Your task to perform on an android device: open sync settings in chrome Image 0: 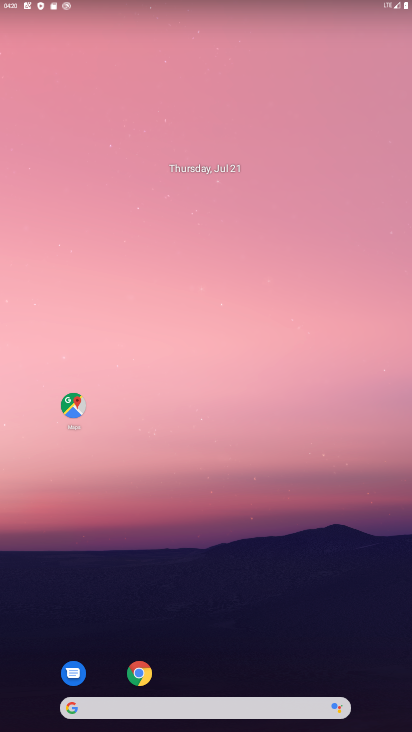
Step 0: drag from (229, 632) to (173, 1)
Your task to perform on an android device: open sync settings in chrome Image 1: 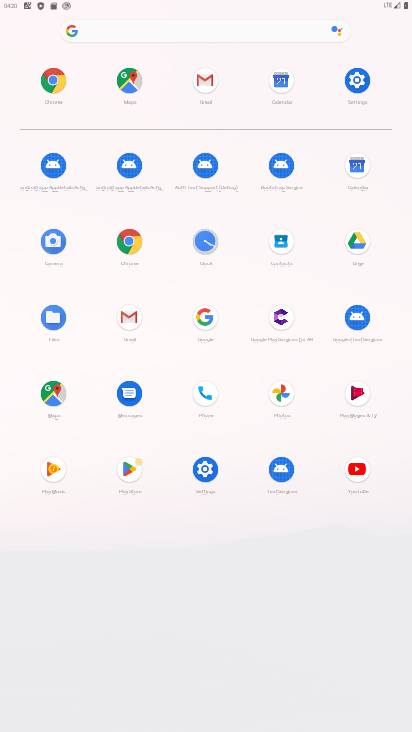
Step 1: click (125, 243)
Your task to perform on an android device: open sync settings in chrome Image 2: 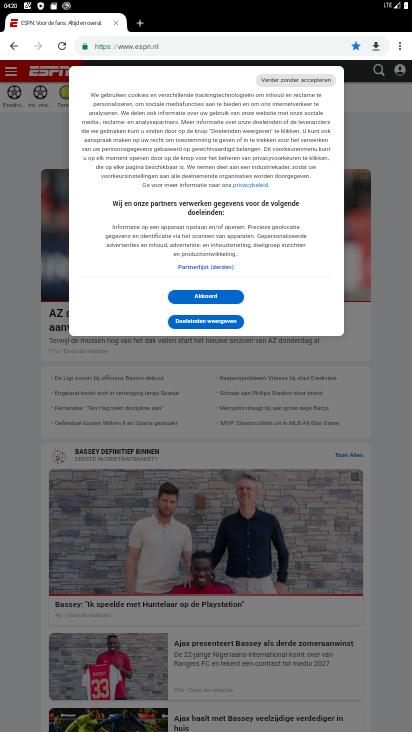
Step 2: drag from (396, 42) to (314, 303)
Your task to perform on an android device: open sync settings in chrome Image 3: 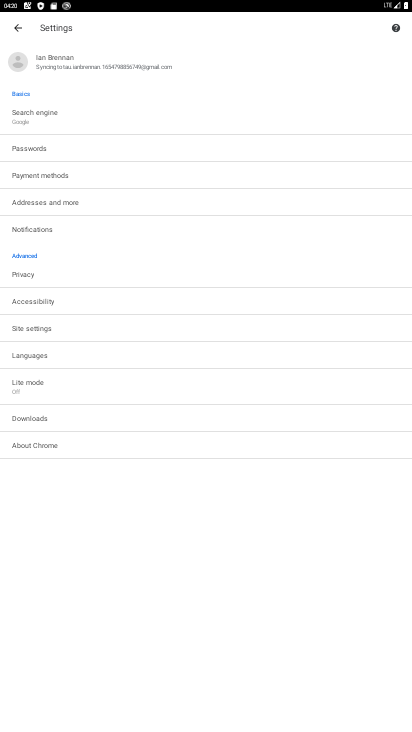
Step 3: click (44, 74)
Your task to perform on an android device: open sync settings in chrome Image 4: 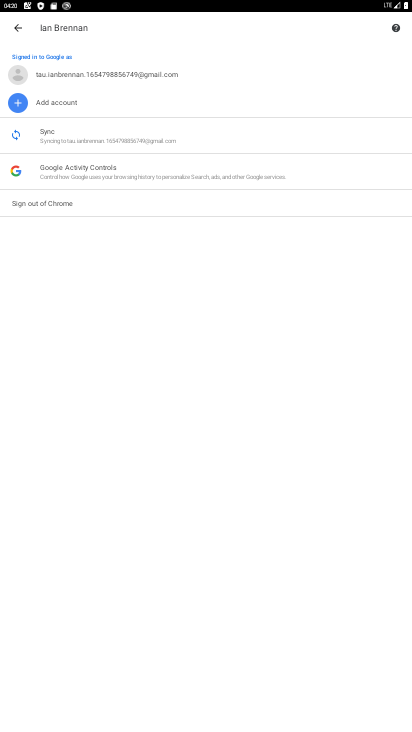
Step 4: click (79, 137)
Your task to perform on an android device: open sync settings in chrome Image 5: 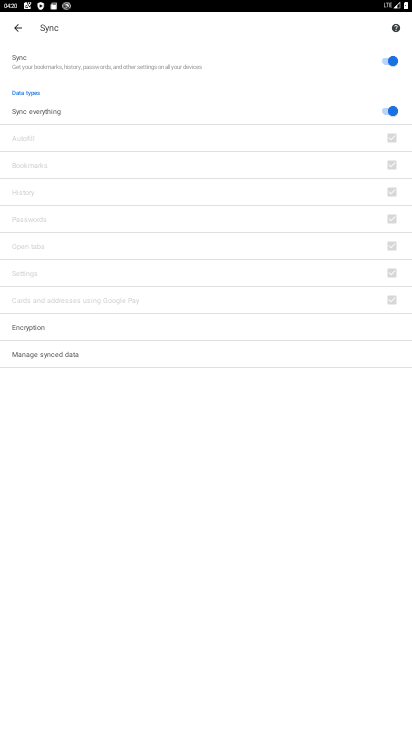
Step 5: task complete